Your task to perform on an android device: check storage Image 0: 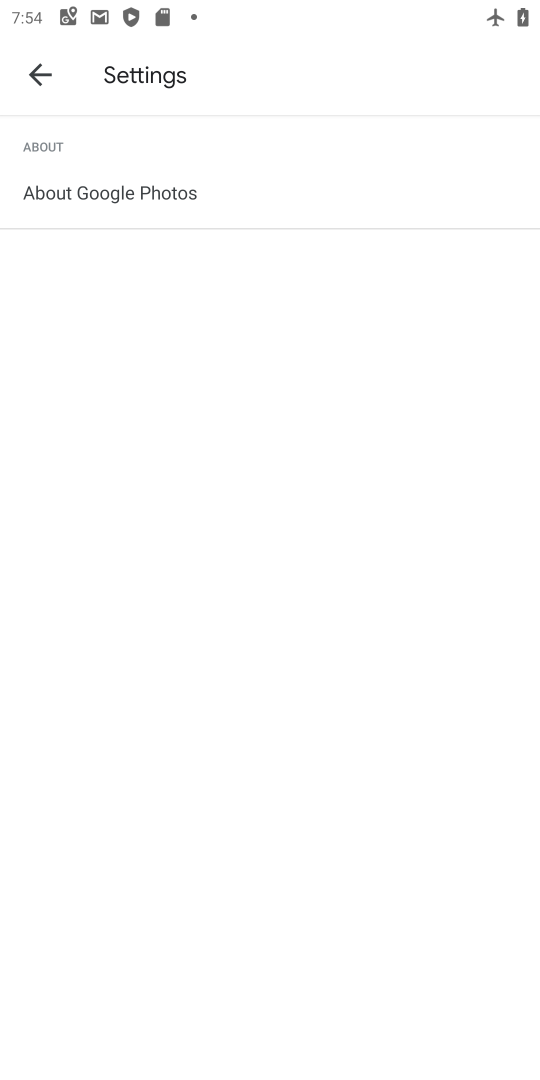
Step 0: press home button
Your task to perform on an android device: check storage Image 1: 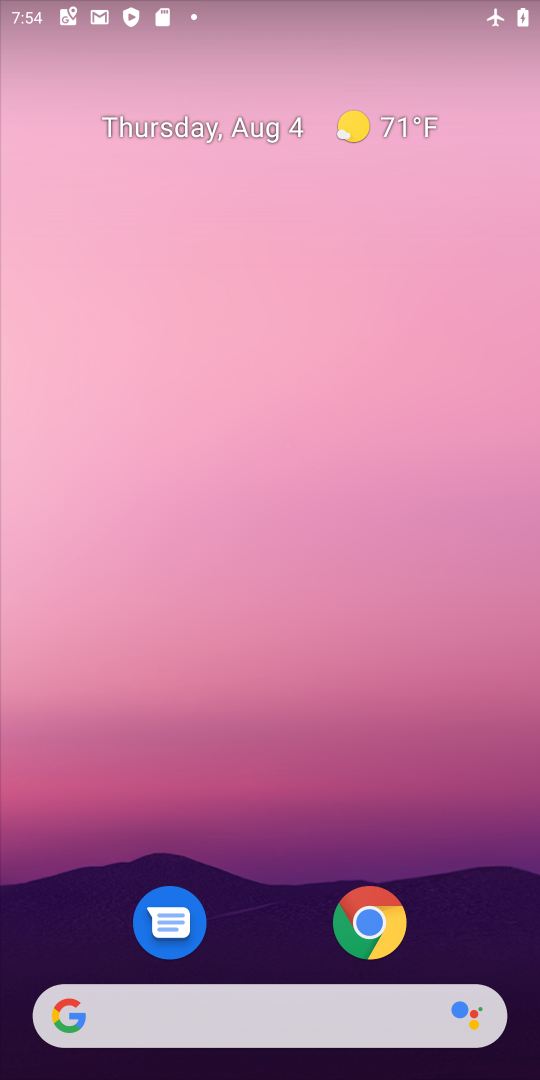
Step 1: drag from (493, 910) to (378, 269)
Your task to perform on an android device: check storage Image 2: 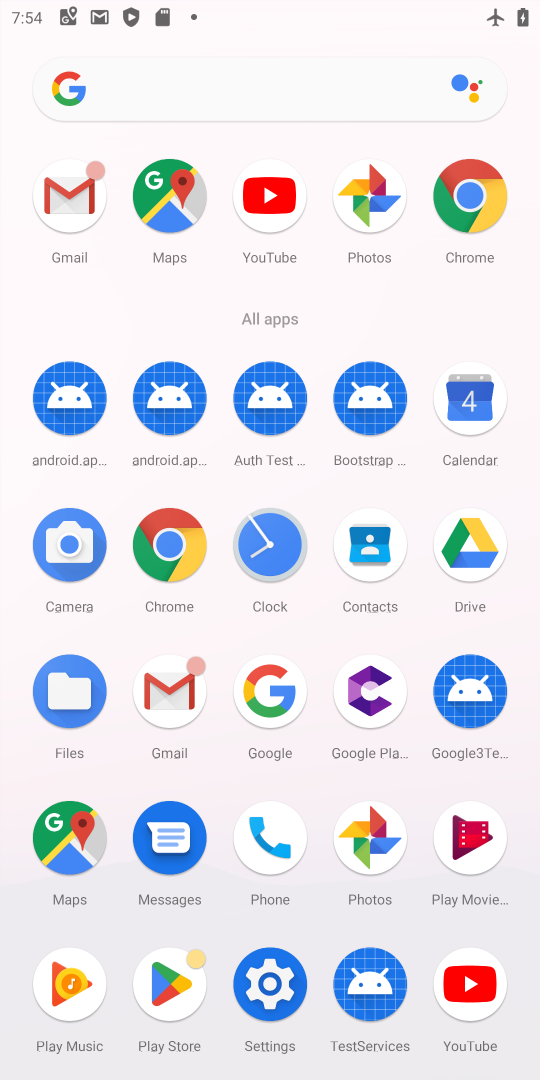
Step 2: click (282, 990)
Your task to perform on an android device: check storage Image 3: 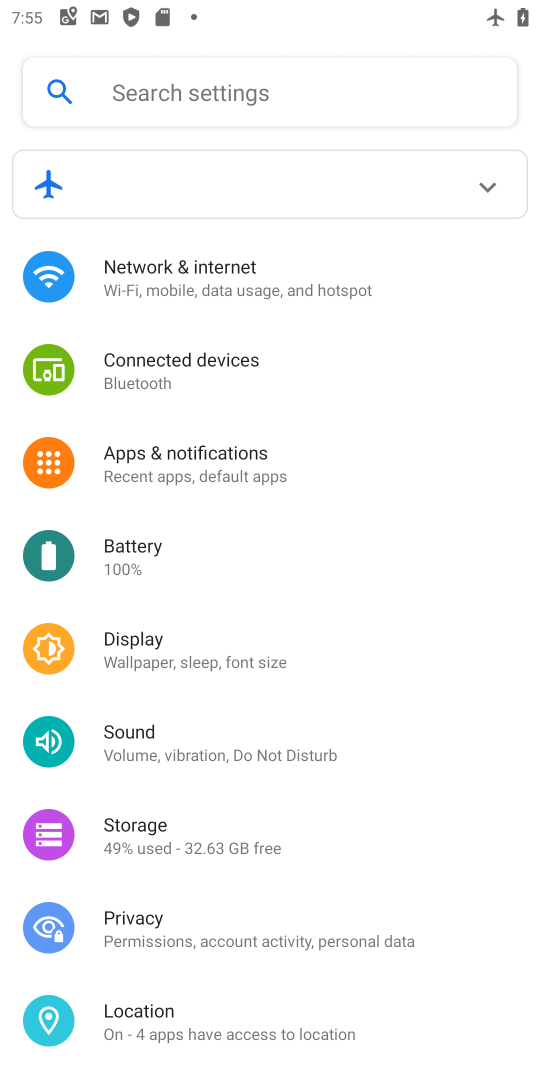
Step 3: click (199, 841)
Your task to perform on an android device: check storage Image 4: 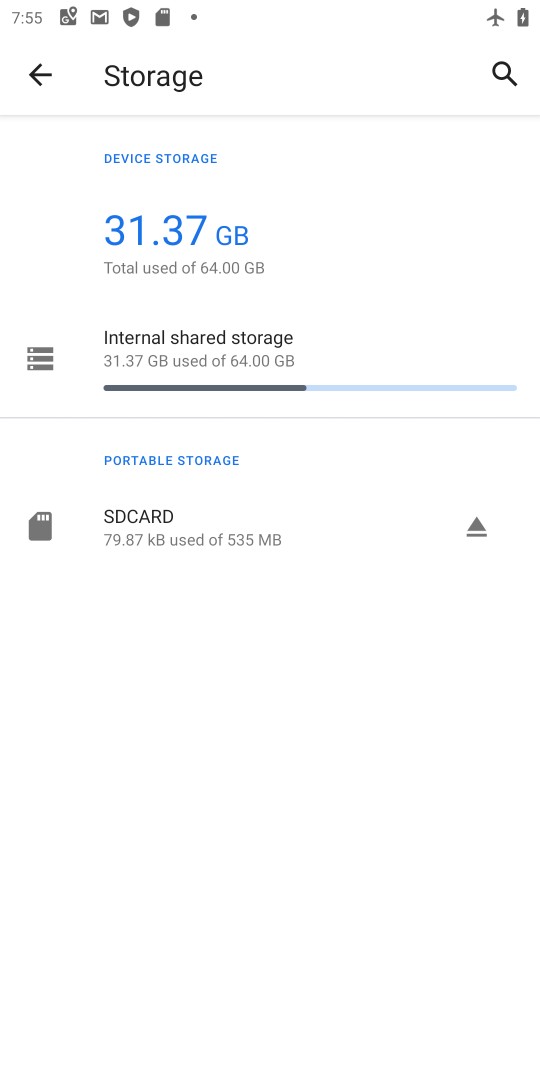
Step 4: task complete